Your task to perform on an android device: stop showing notifications on the lock screen Image 0: 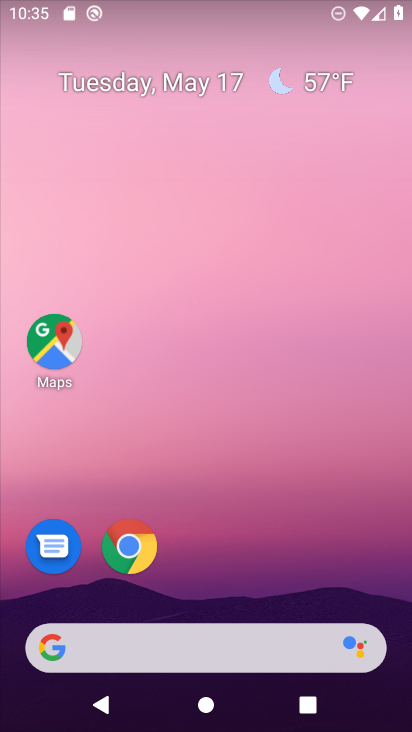
Step 0: drag from (326, 607) to (295, 18)
Your task to perform on an android device: stop showing notifications on the lock screen Image 1: 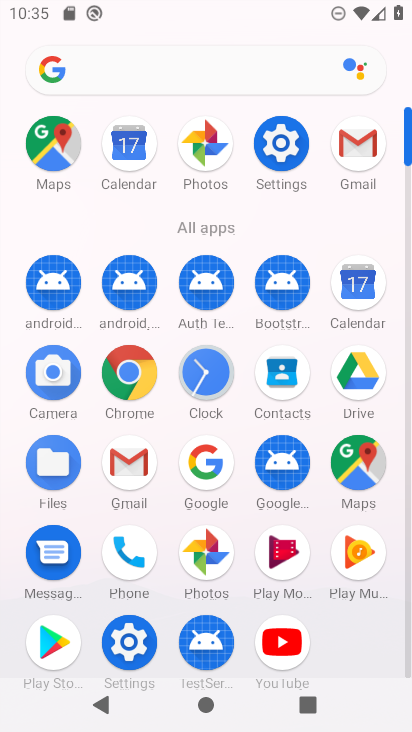
Step 1: click (286, 152)
Your task to perform on an android device: stop showing notifications on the lock screen Image 2: 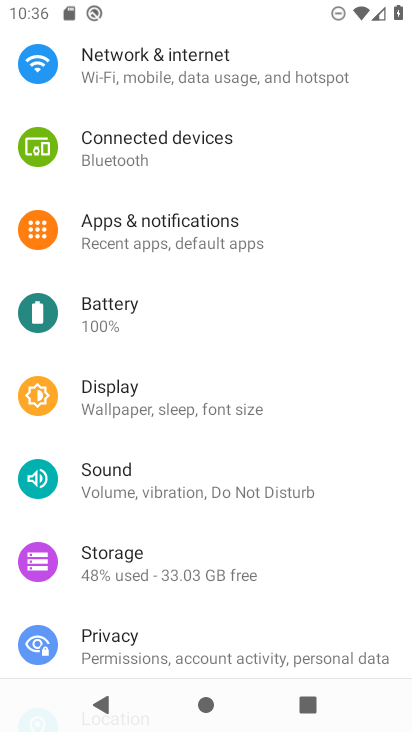
Step 2: click (156, 225)
Your task to perform on an android device: stop showing notifications on the lock screen Image 3: 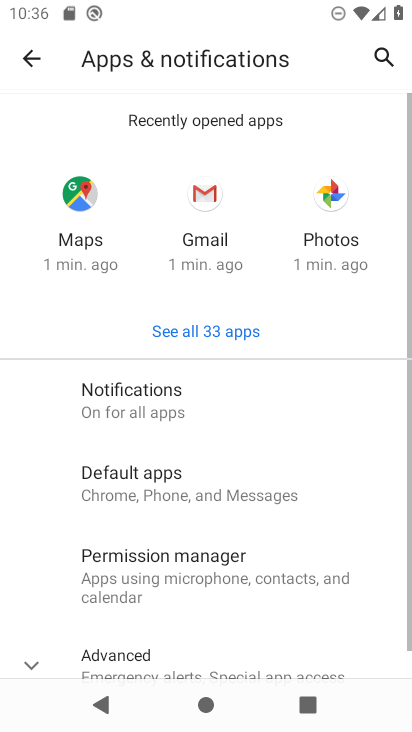
Step 3: click (125, 407)
Your task to perform on an android device: stop showing notifications on the lock screen Image 4: 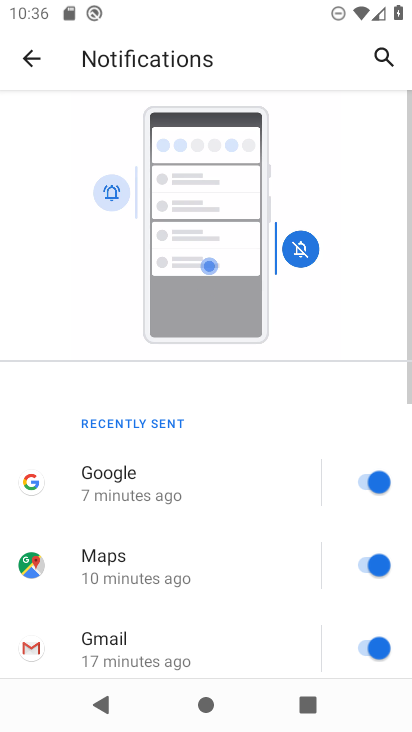
Step 4: drag from (142, 566) to (145, 74)
Your task to perform on an android device: stop showing notifications on the lock screen Image 5: 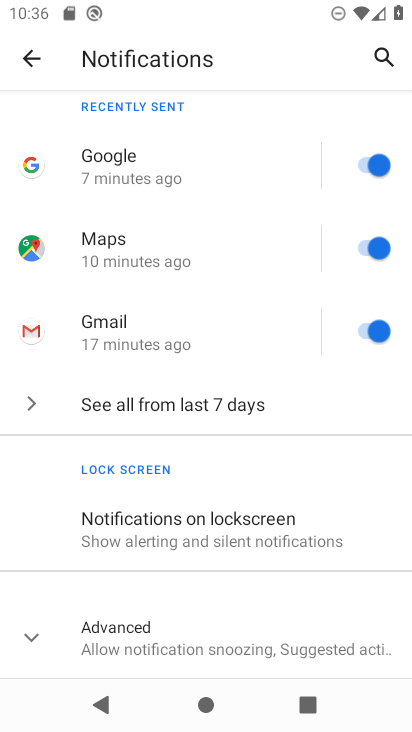
Step 5: click (118, 530)
Your task to perform on an android device: stop showing notifications on the lock screen Image 6: 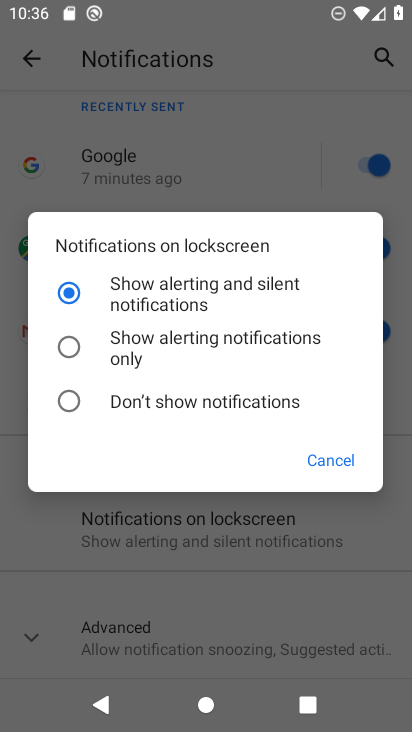
Step 6: click (54, 403)
Your task to perform on an android device: stop showing notifications on the lock screen Image 7: 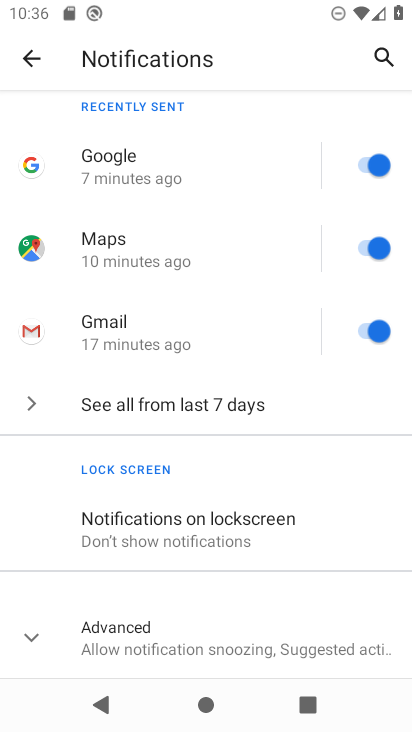
Step 7: task complete